Your task to perform on an android device: toggle sleep mode Image 0: 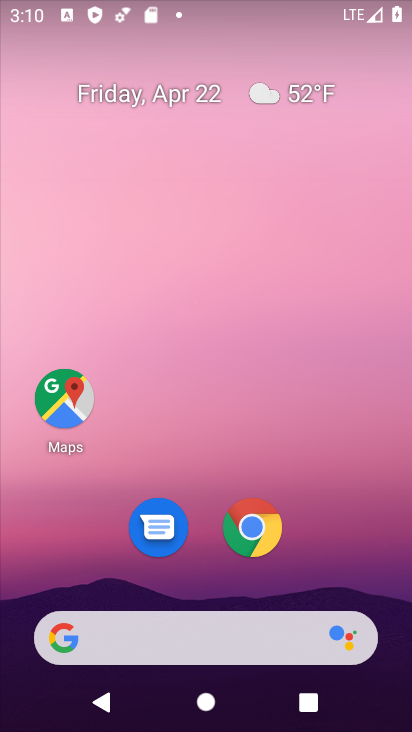
Step 0: drag from (324, 527) to (403, 36)
Your task to perform on an android device: toggle sleep mode Image 1: 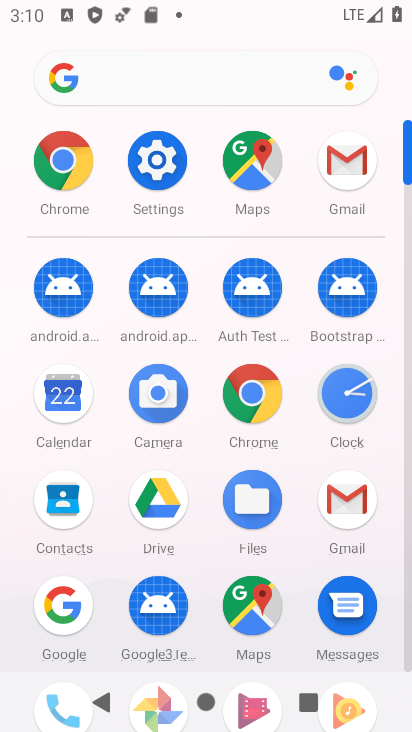
Step 1: click (161, 172)
Your task to perform on an android device: toggle sleep mode Image 2: 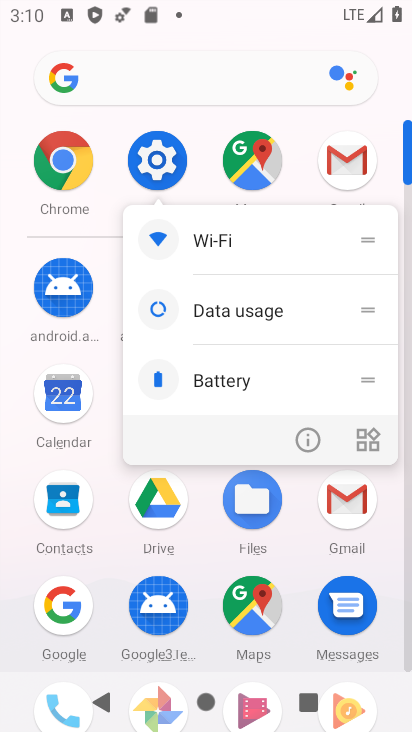
Step 2: click (161, 171)
Your task to perform on an android device: toggle sleep mode Image 3: 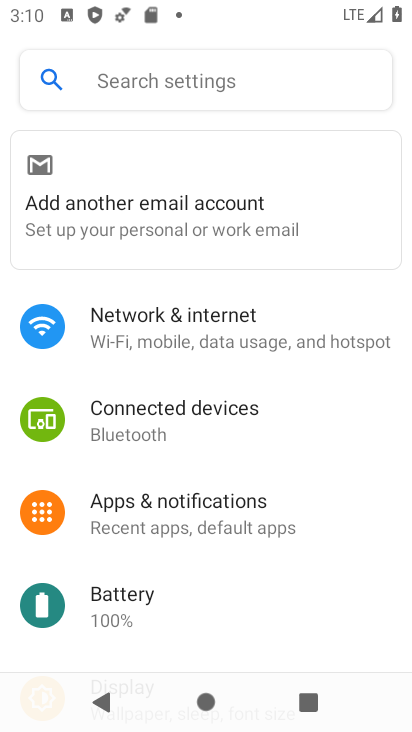
Step 3: drag from (225, 376) to (266, 229)
Your task to perform on an android device: toggle sleep mode Image 4: 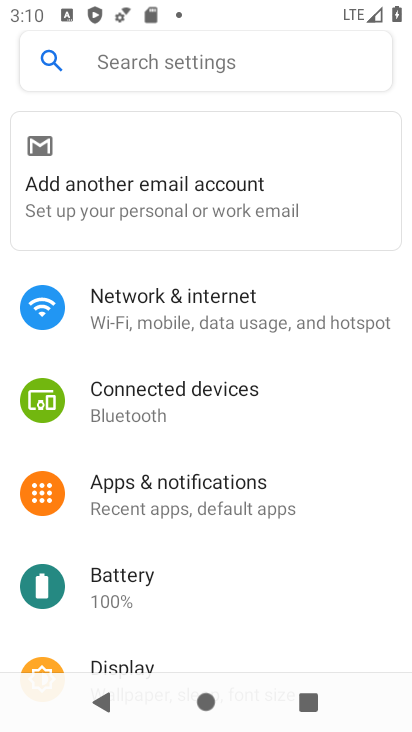
Step 4: drag from (182, 556) to (250, 220)
Your task to perform on an android device: toggle sleep mode Image 5: 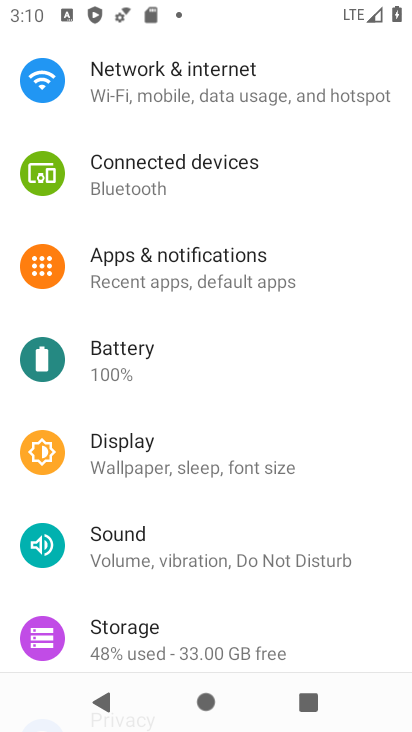
Step 5: drag from (205, 585) to (216, 252)
Your task to perform on an android device: toggle sleep mode Image 6: 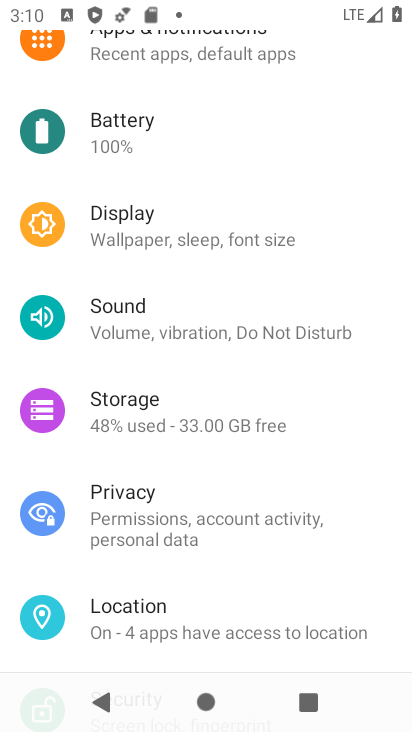
Step 6: click (192, 223)
Your task to perform on an android device: toggle sleep mode Image 7: 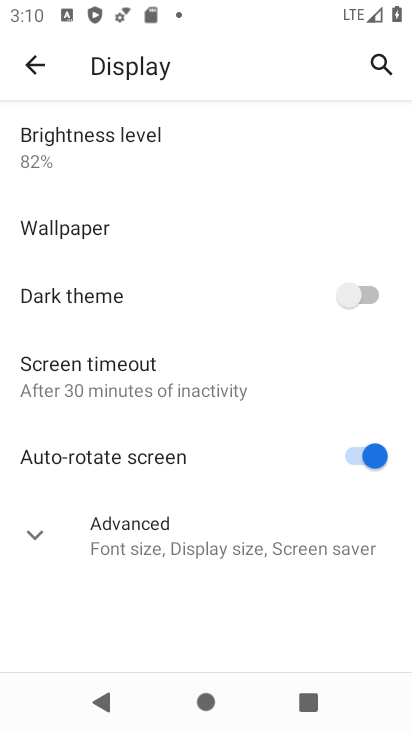
Step 7: click (91, 372)
Your task to perform on an android device: toggle sleep mode Image 8: 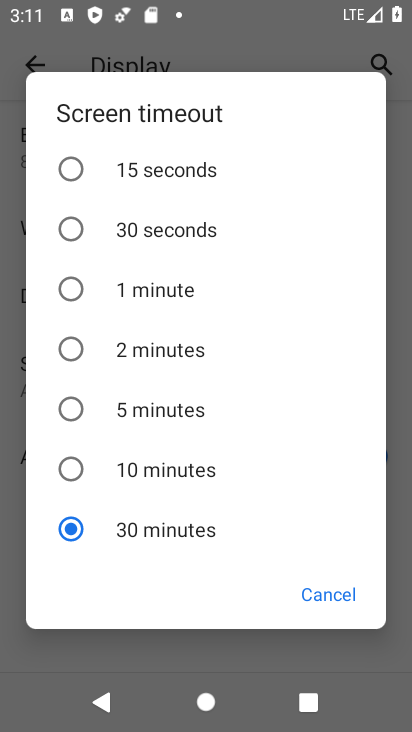
Step 8: click (72, 350)
Your task to perform on an android device: toggle sleep mode Image 9: 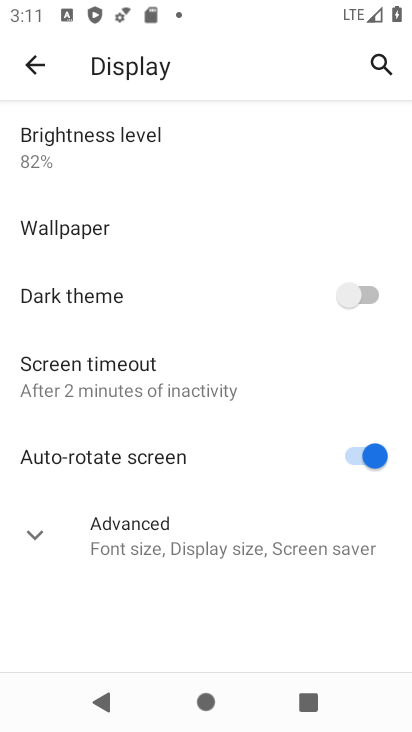
Step 9: task complete